Your task to perform on an android device: change the clock display to digital Image 0: 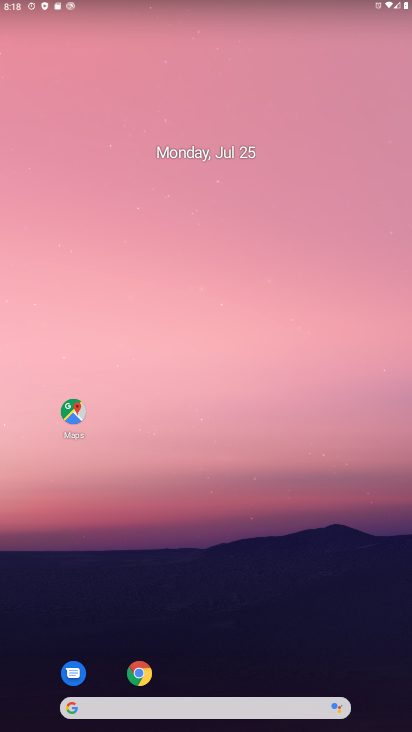
Step 0: drag from (342, 658) to (155, 4)
Your task to perform on an android device: change the clock display to digital Image 1: 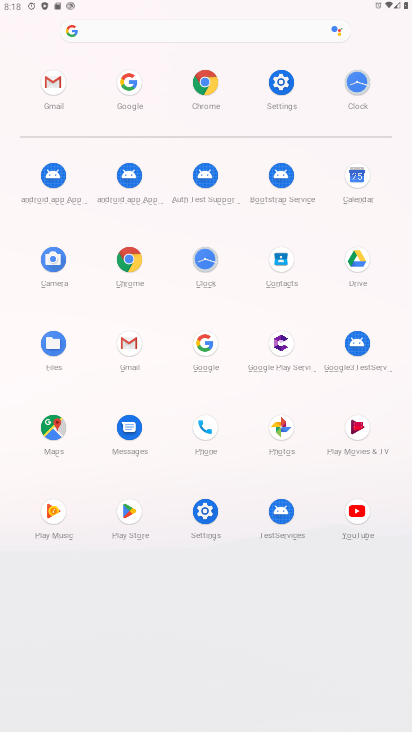
Step 1: click (200, 292)
Your task to perform on an android device: change the clock display to digital Image 2: 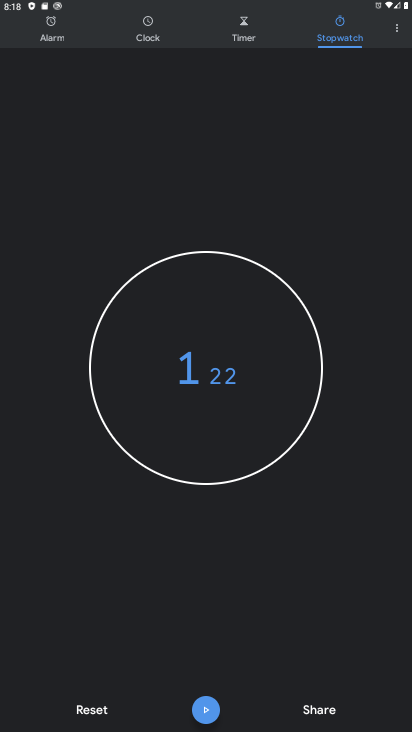
Step 2: click (394, 30)
Your task to perform on an android device: change the clock display to digital Image 3: 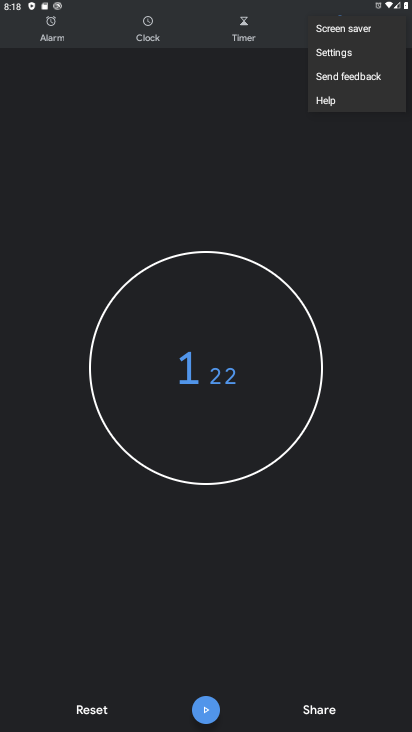
Step 3: click (341, 48)
Your task to perform on an android device: change the clock display to digital Image 4: 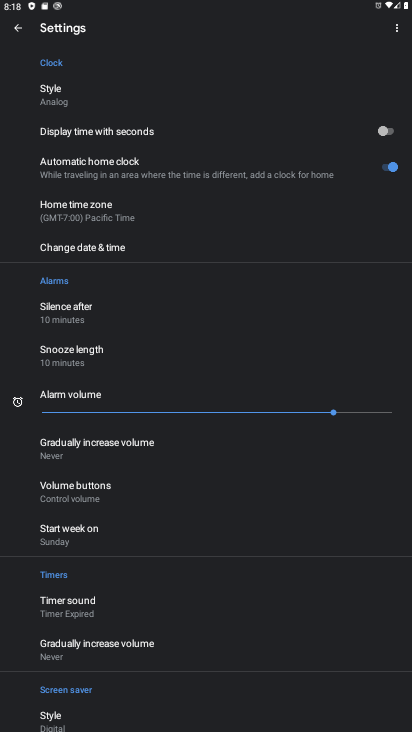
Step 4: click (92, 94)
Your task to perform on an android device: change the clock display to digital Image 5: 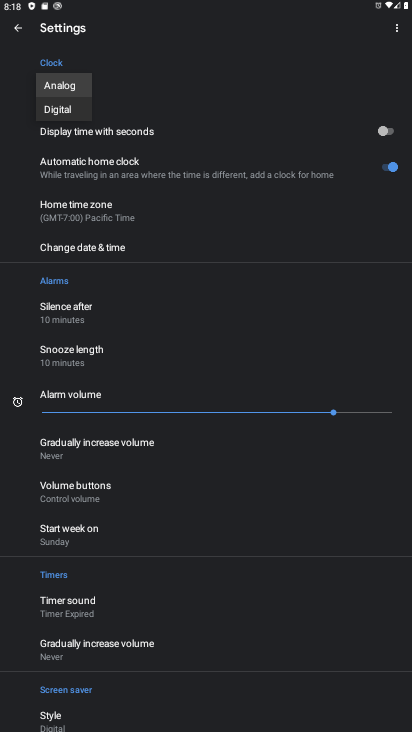
Step 5: click (65, 106)
Your task to perform on an android device: change the clock display to digital Image 6: 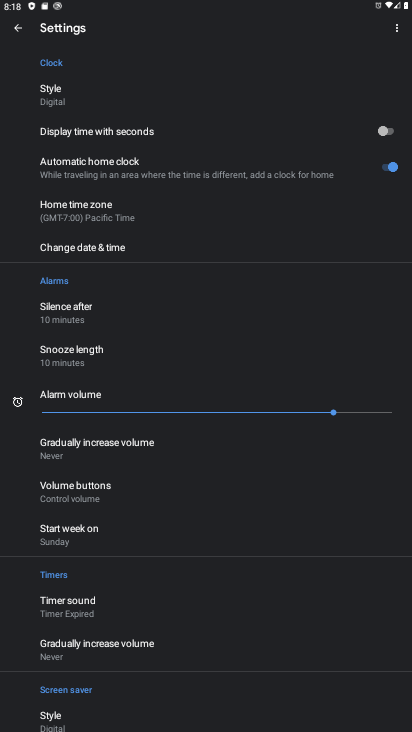
Step 6: task complete